Your task to perform on an android device: turn on priority inbox in the gmail app Image 0: 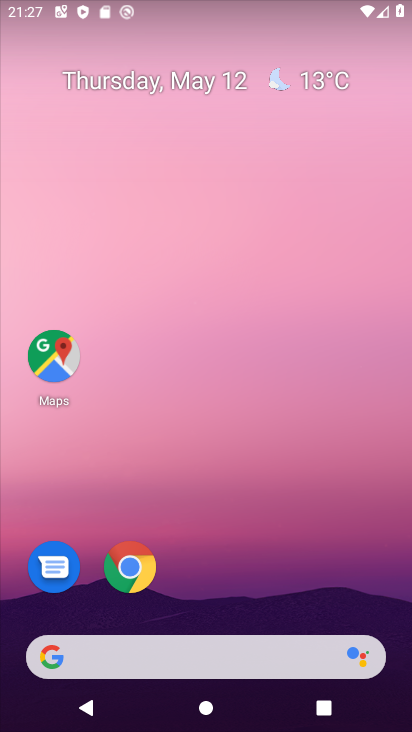
Step 0: click (214, 57)
Your task to perform on an android device: turn on priority inbox in the gmail app Image 1: 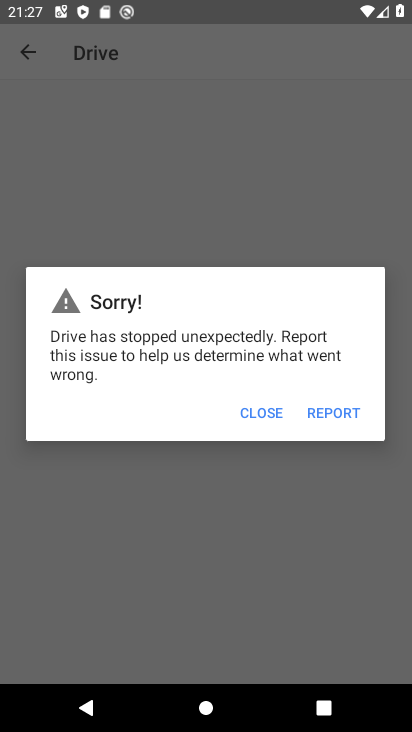
Step 1: press home button
Your task to perform on an android device: turn on priority inbox in the gmail app Image 2: 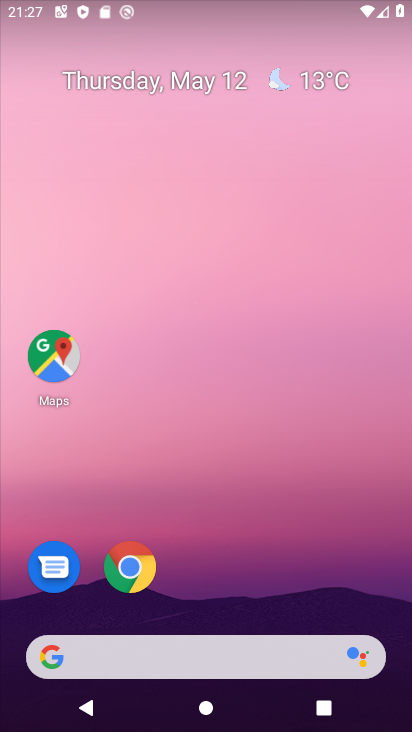
Step 2: drag from (219, 609) to (209, 166)
Your task to perform on an android device: turn on priority inbox in the gmail app Image 3: 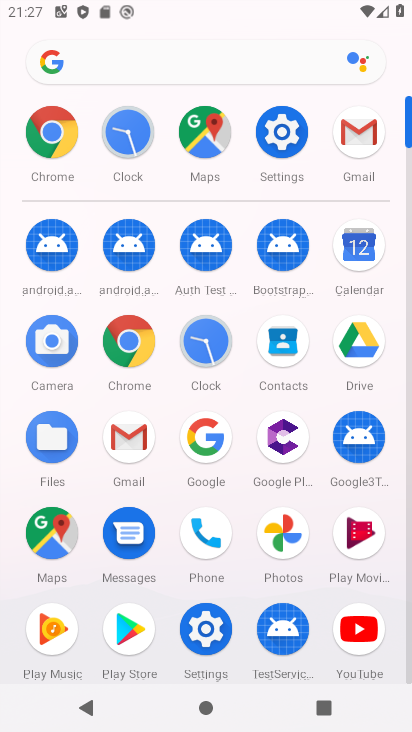
Step 3: click (356, 129)
Your task to perform on an android device: turn on priority inbox in the gmail app Image 4: 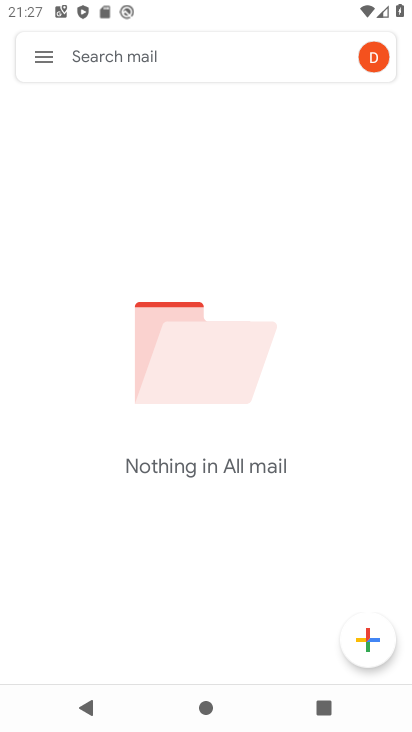
Step 4: click (42, 53)
Your task to perform on an android device: turn on priority inbox in the gmail app Image 5: 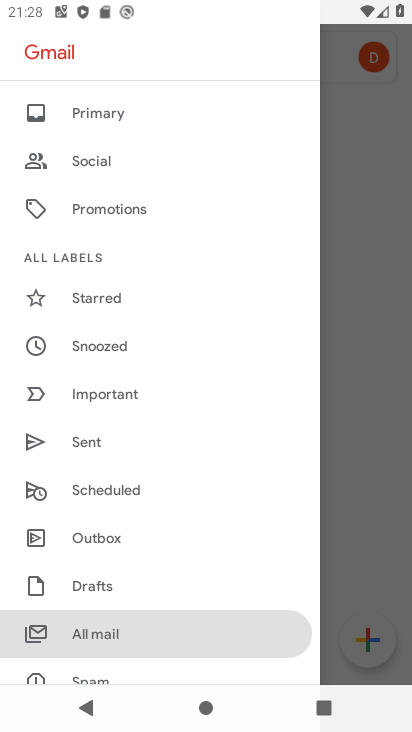
Step 5: drag from (159, 591) to (156, 73)
Your task to perform on an android device: turn on priority inbox in the gmail app Image 6: 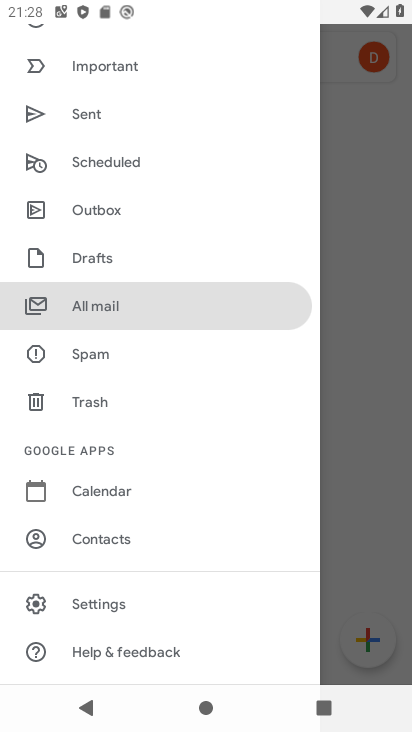
Step 6: click (142, 600)
Your task to perform on an android device: turn on priority inbox in the gmail app Image 7: 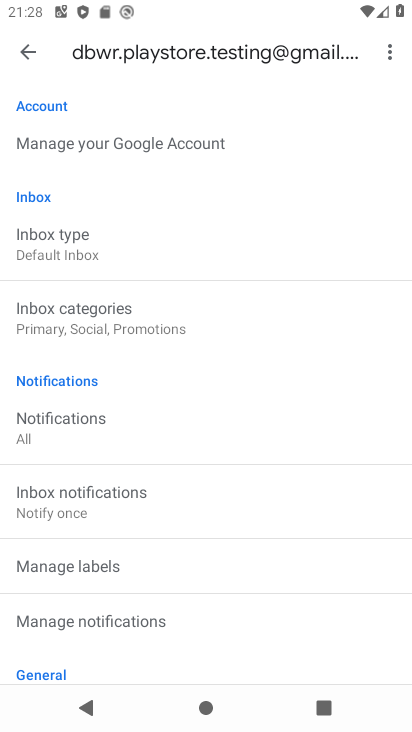
Step 7: click (112, 244)
Your task to perform on an android device: turn on priority inbox in the gmail app Image 8: 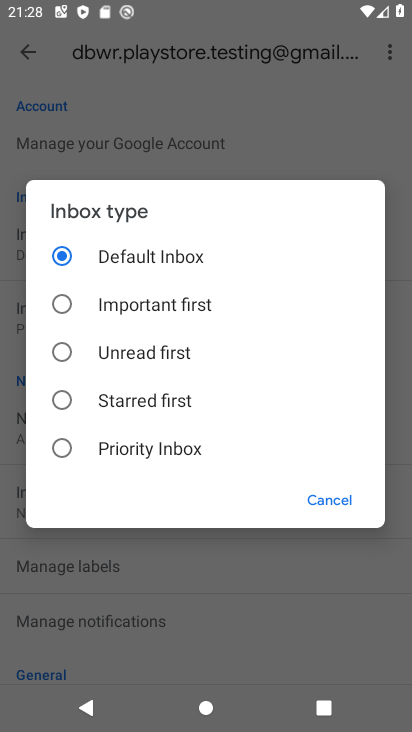
Step 8: click (57, 445)
Your task to perform on an android device: turn on priority inbox in the gmail app Image 9: 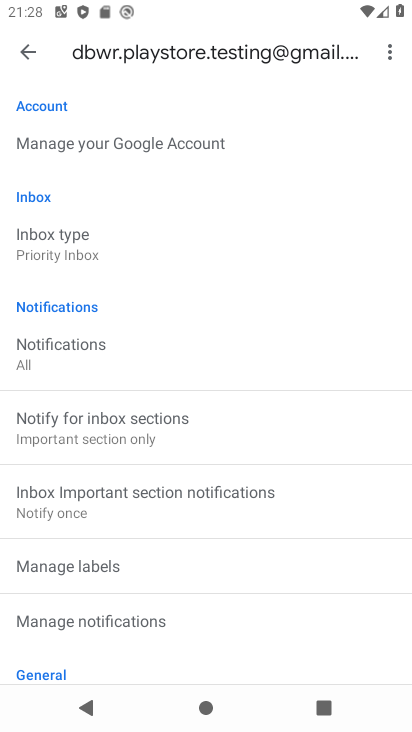
Step 9: task complete